Your task to perform on an android device: check out phone information Image 0: 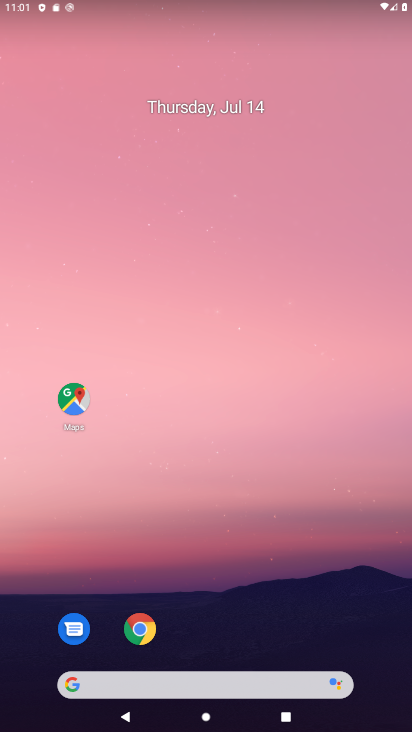
Step 0: drag from (180, 635) to (177, 28)
Your task to perform on an android device: check out phone information Image 1: 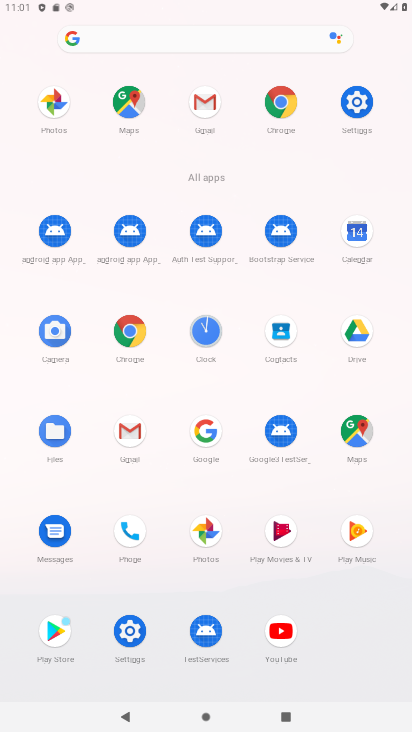
Step 1: click (127, 637)
Your task to perform on an android device: check out phone information Image 2: 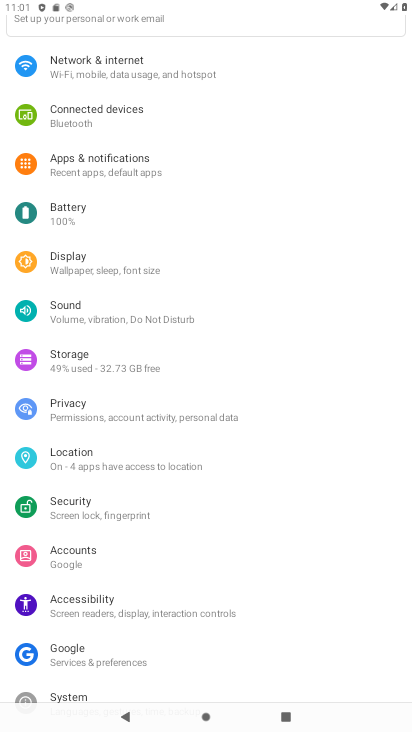
Step 2: drag from (180, 589) to (210, 86)
Your task to perform on an android device: check out phone information Image 3: 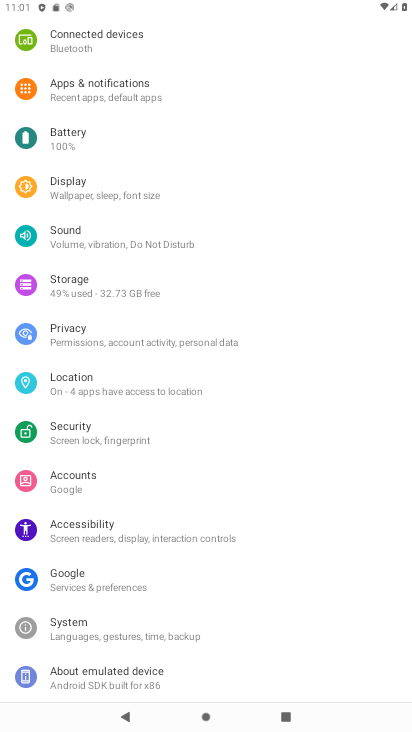
Step 3: click (119, 682)
Your task to perform on an android device: check out phone information Image 4: 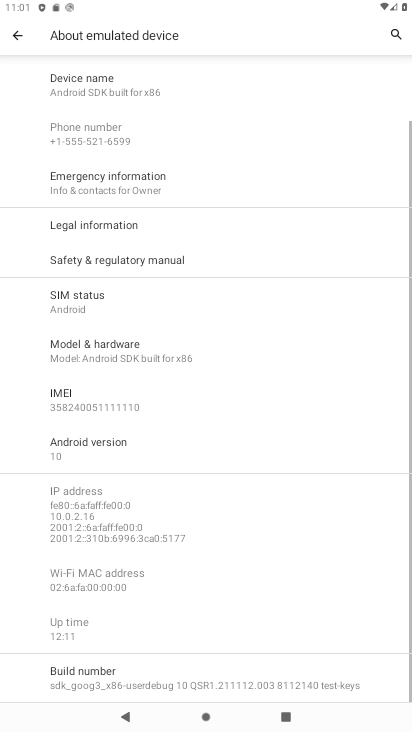
Step 4: task complete